Your task to perform on an android device: open app "Truecaller" (install if not already installed) Image 0: 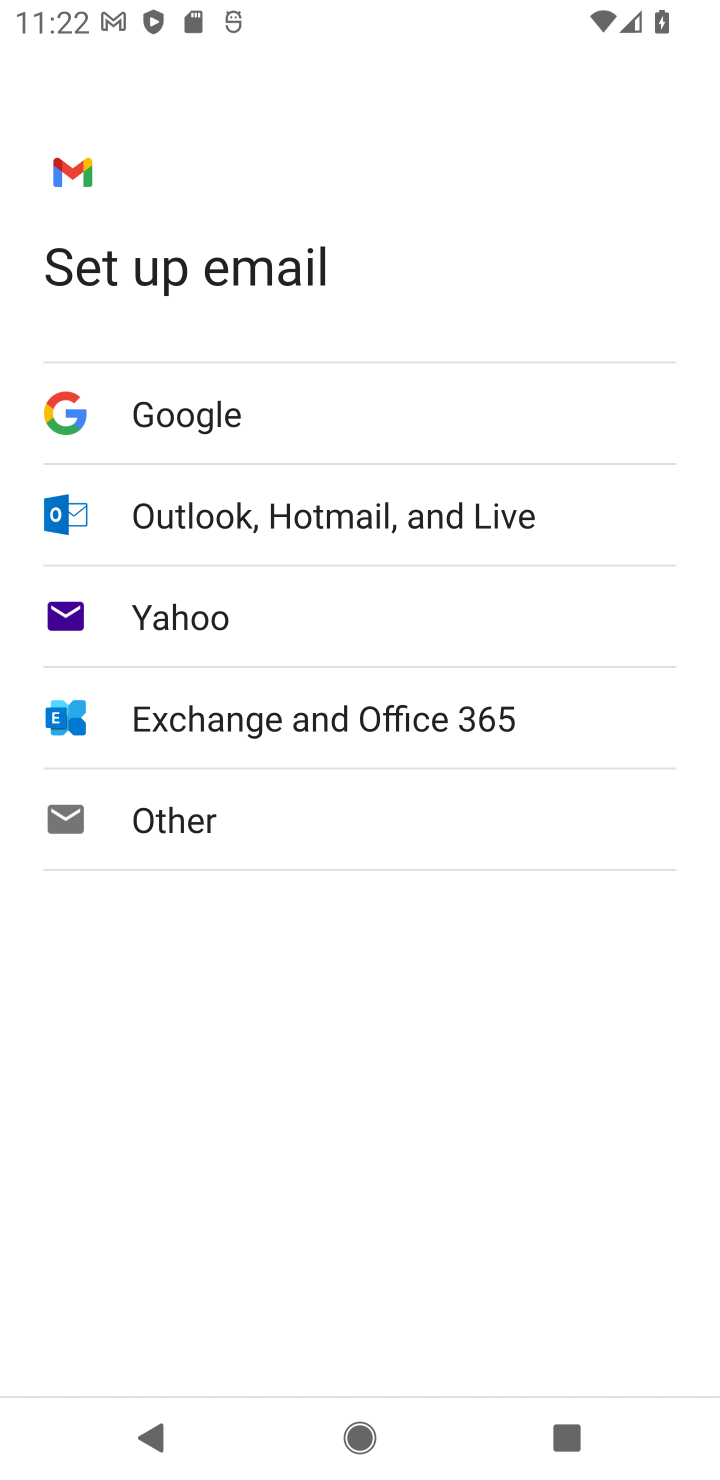
Step 0: press home button
Your task to perform on an android device: open app "Truecaller" (install if not already installed) Image 1: 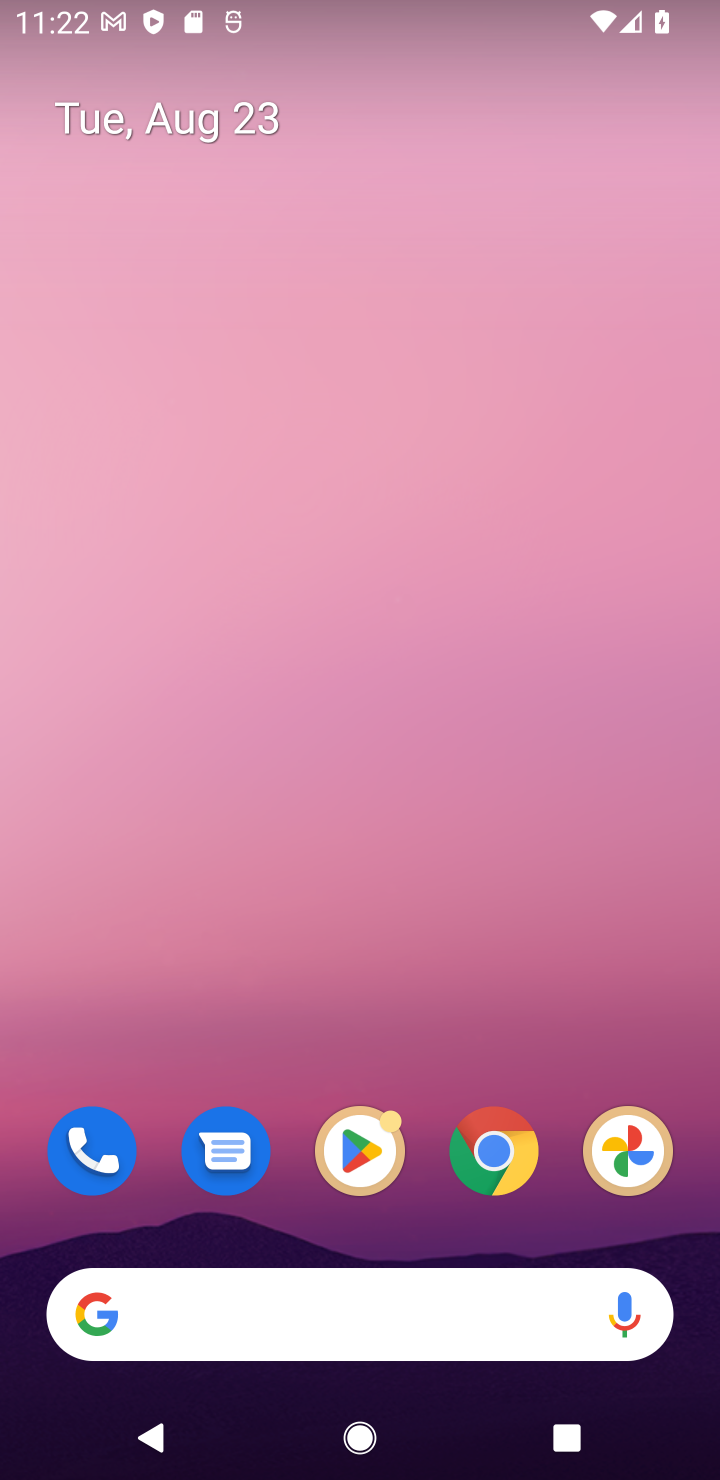
Step 1: drag from (279, 1250) to (409, 82)
Your task to perform on an android device: open app "Truecaller" (install if not already installed) Image 2: 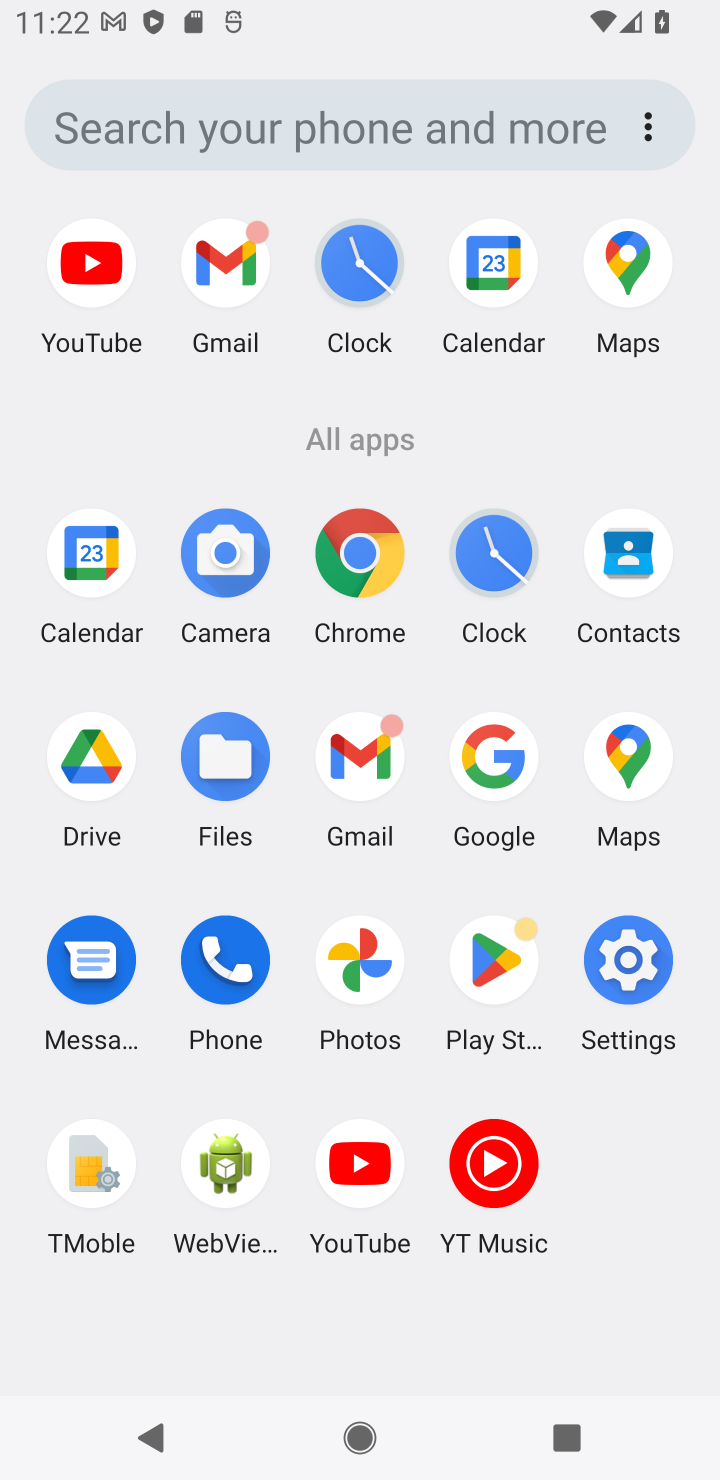
Step 2: click (507, 966)
Your task to perform on an android device: open app "Truecaller" (install if not already installed) Image 3: 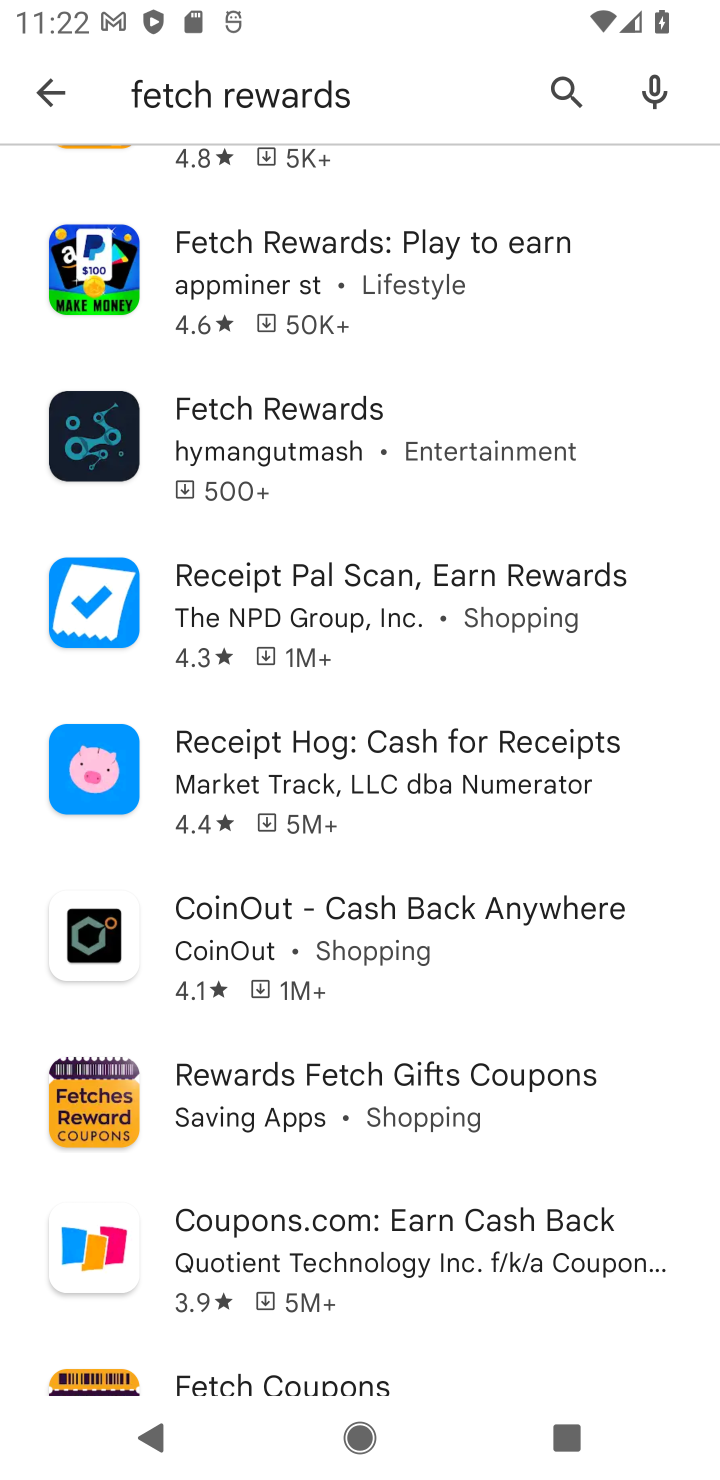
Step 3: press back button
Your task to perform on an android device: open app "Truecaller" (install if not already installed) Image 4: 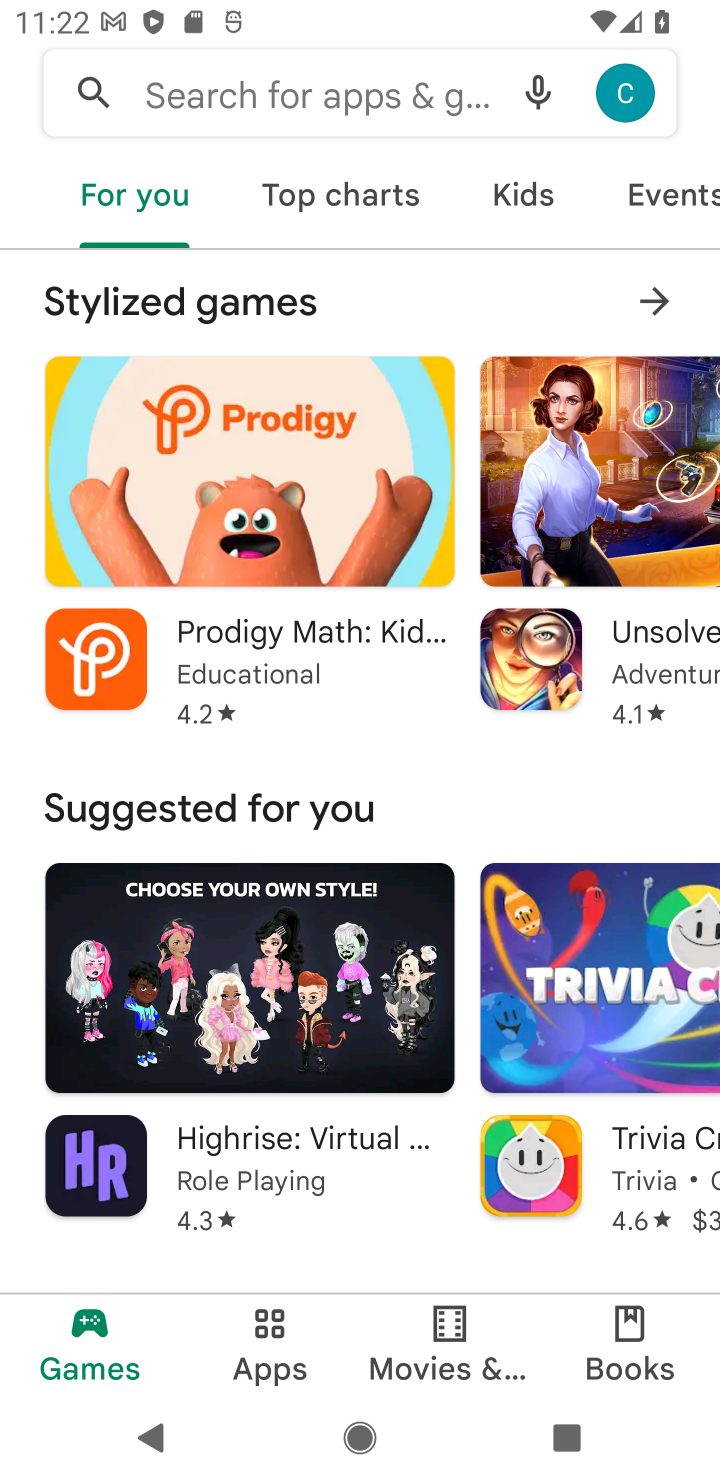
Step 4: click (388, 106)
Your task to perform on an android device: open app "Truecaller" (install if not already installed) Image 5: 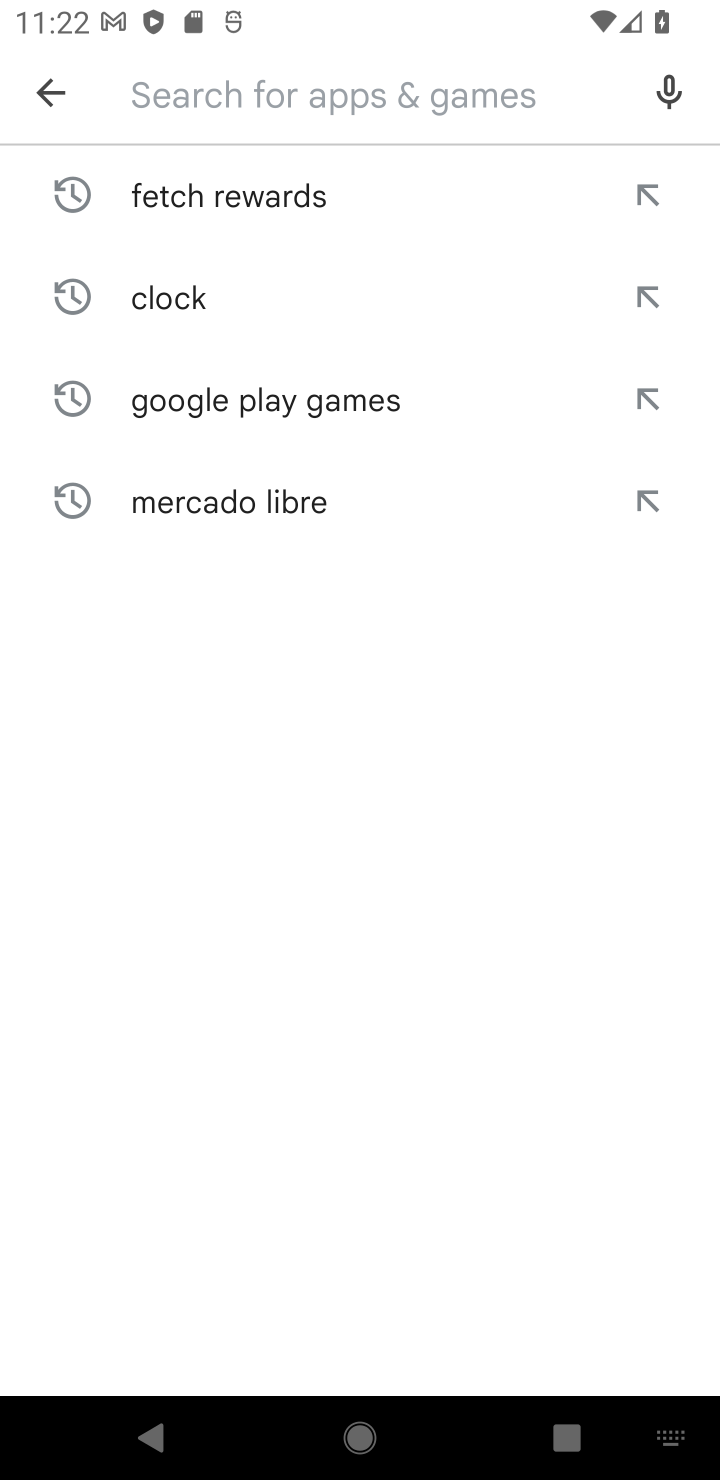
Step 5: type "Truecaller"
Your task to perform on an android device: open app "Truecaller" (install if not already installed) Image 6: 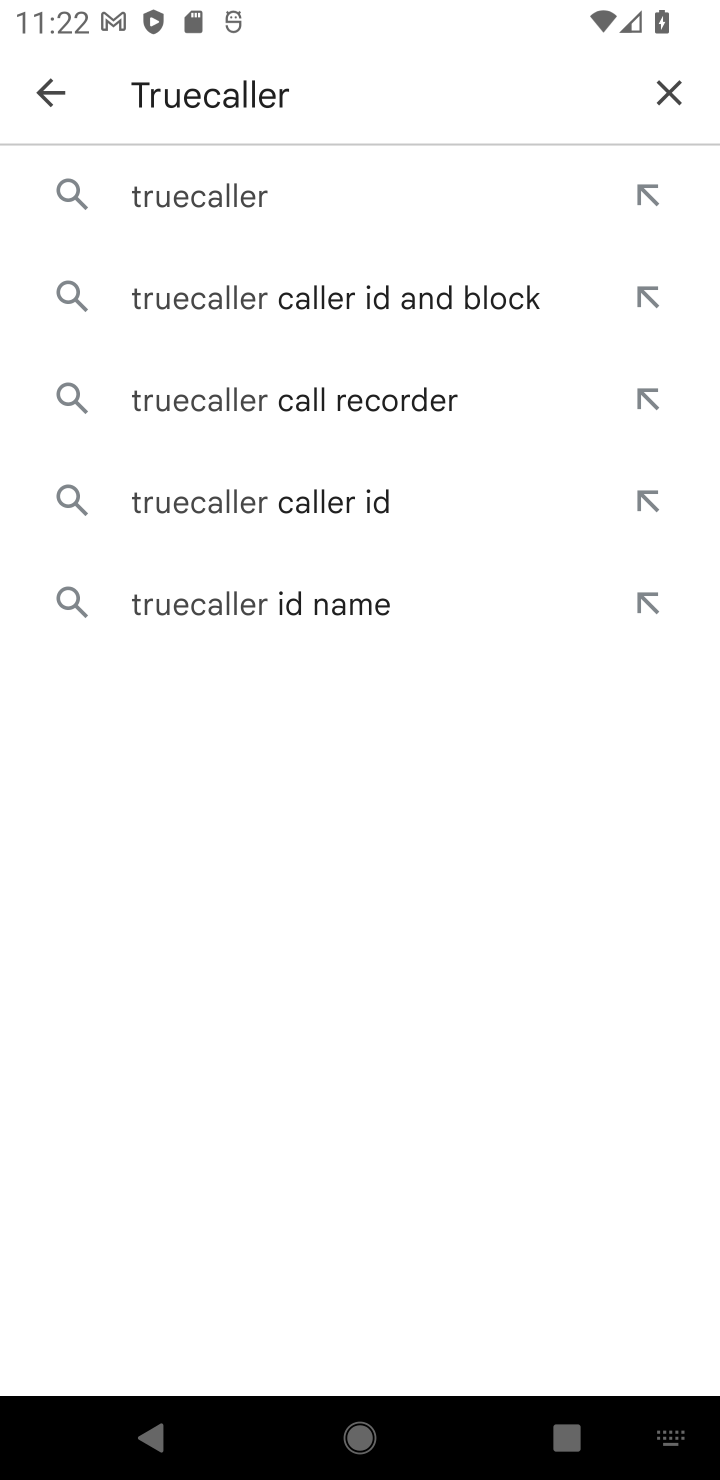
Step 6: click (218, 201)
Your task to perform on an android device: open app "Truecaller" (install if not already installed) Image 7: 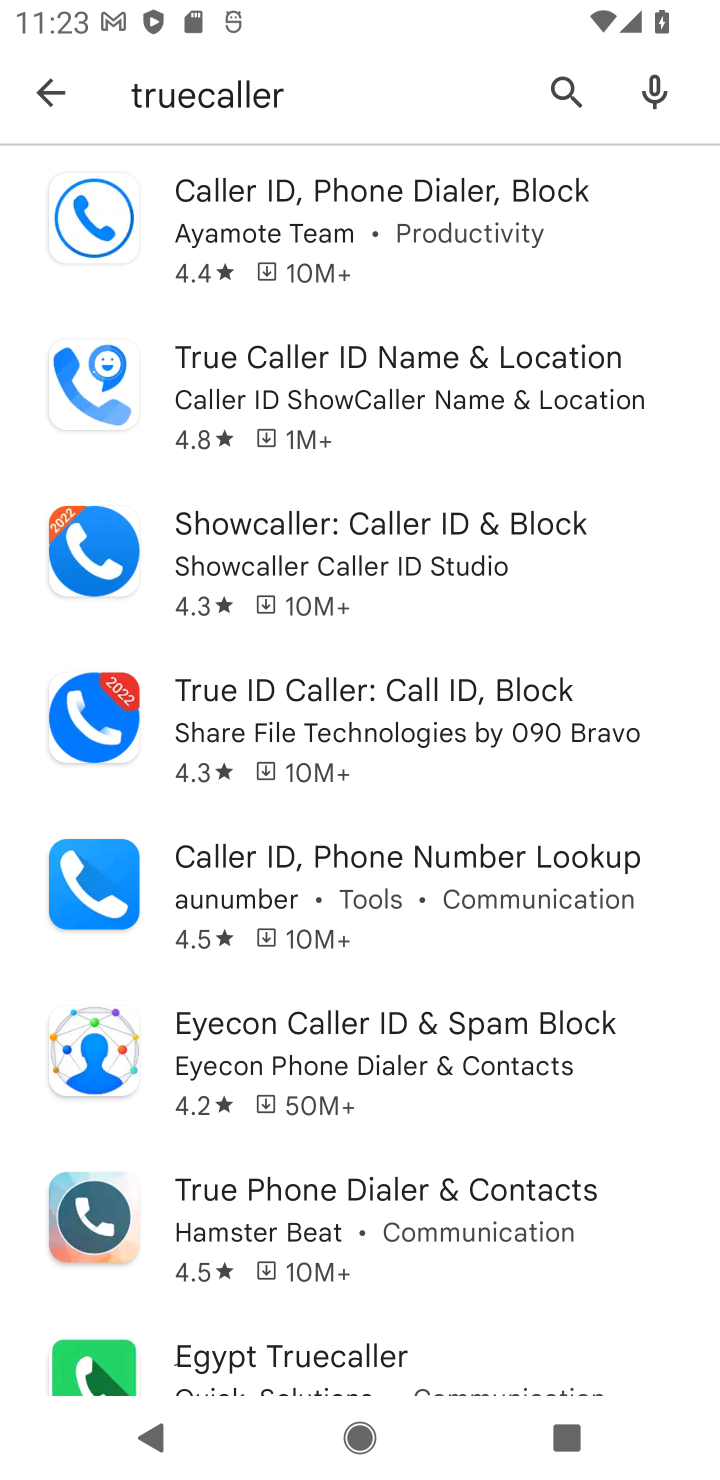
Step 7: task complete